Your task to perform on an android device: Open eBay Image 0: 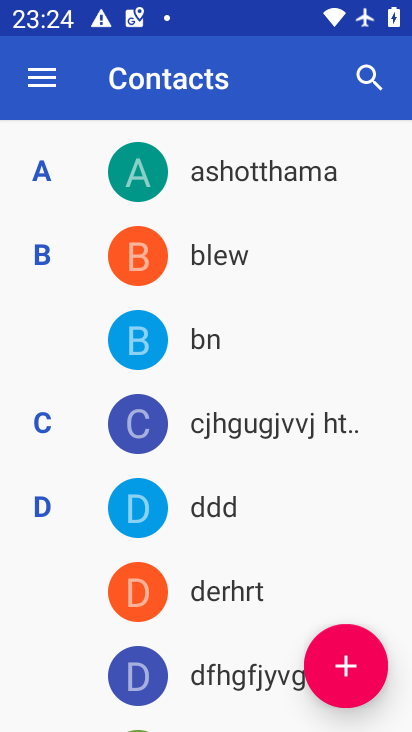
Step 0: press home button
Your task to perform on an android device: Open eBay Image 1: 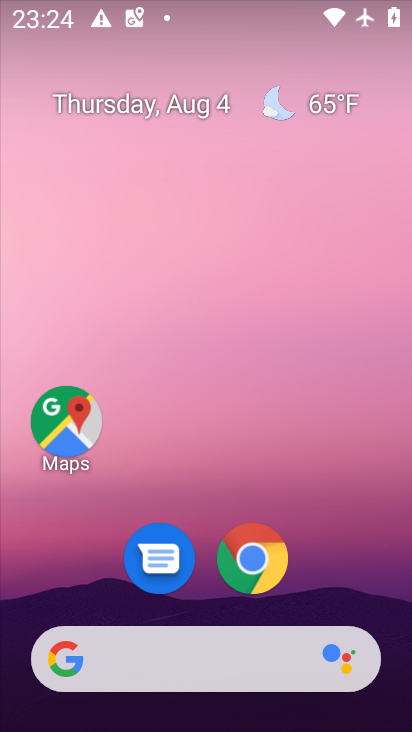
Step 1: click (259, 562)
Your task to perform on an android device: Open eBay Image 2: 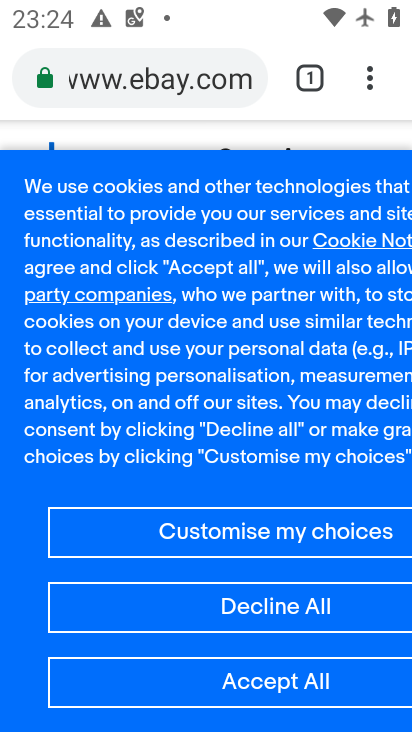
Step 2: task complete